Your task to perform on an android device: Check my gmail inbox Image 0: 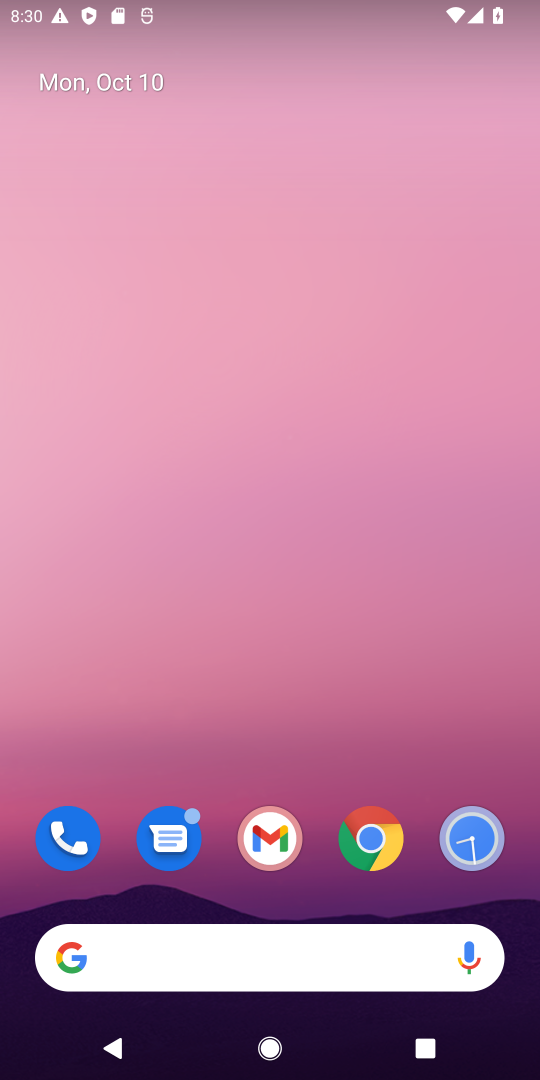
Step 0: drag from (313, 775) to (262, 6)
Your task to perform on an android device: Check my gmail inbox Image 1: 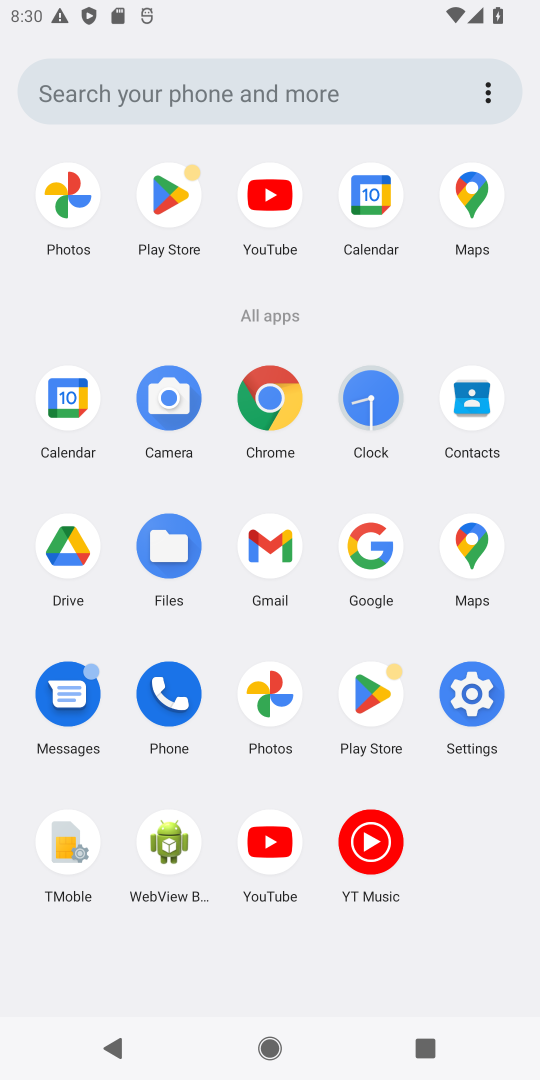
Step 1: click (286, 549)
Your task to perform on an android device: Check my gmail inbox Image 2: 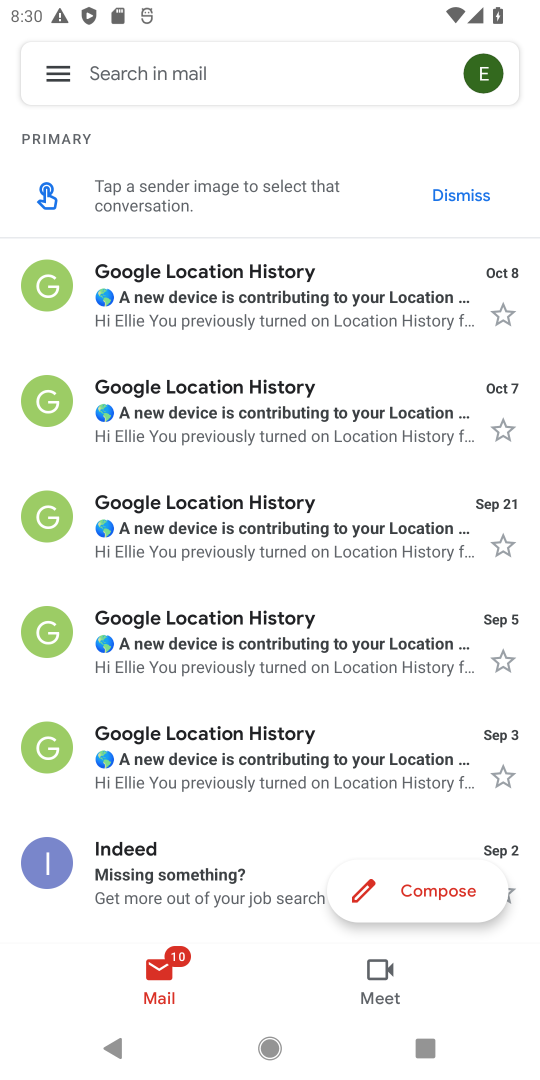
Step 2: task complete